Your task to perform on an android device: Open calendar and show me the second week of next month Image 0: 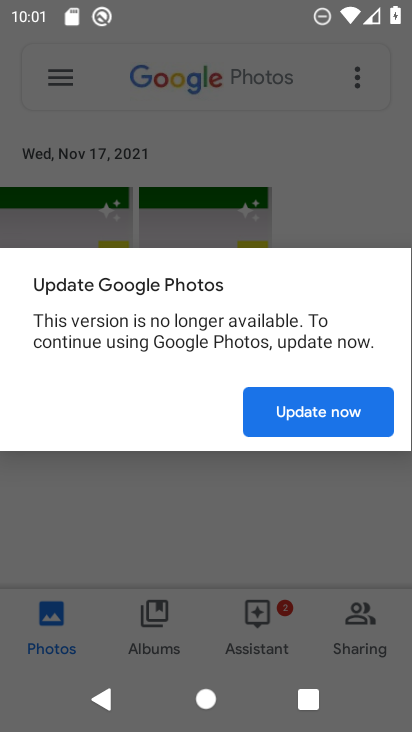
Step 0: press home button
Your task to perform on an android device: Open calendar and show me the second week of next month Image 1: 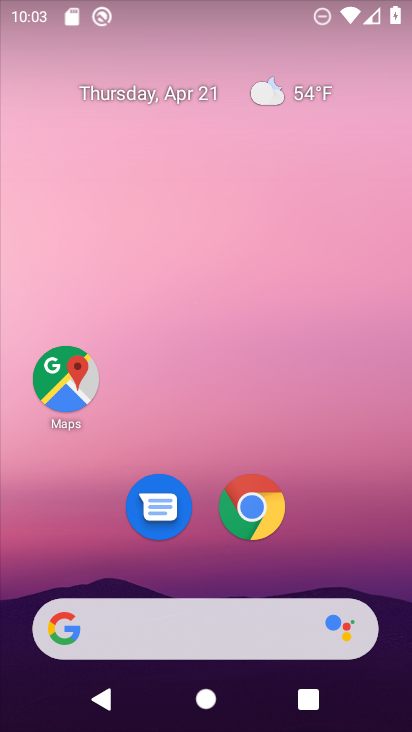
Step 1: drag from (176, 599) to (203, 277)
Your task to perform on an android device: Open calendar and show me the second week of next month Image 2: 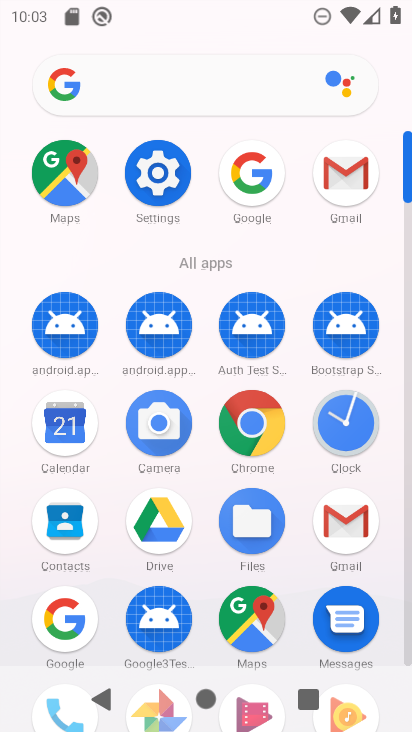
Step 2: click (59, 430)
Your task to perform on an android device: Open calendar and show me the second week of next month Image 3: 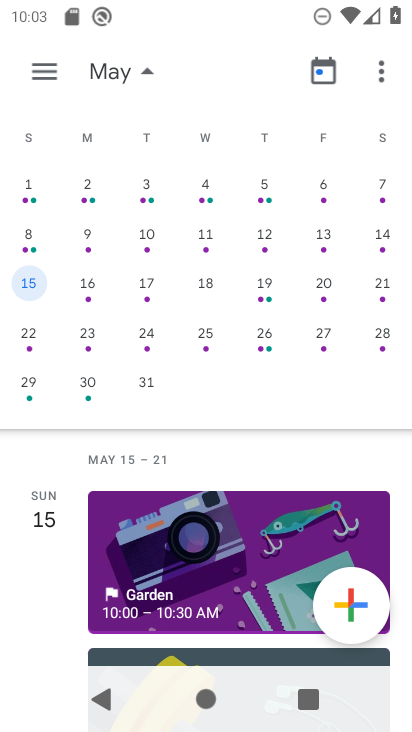
Step 3: click (20, 235)
Your task to perform on an android device: Open calendar and show me the second week of next month Image 4: 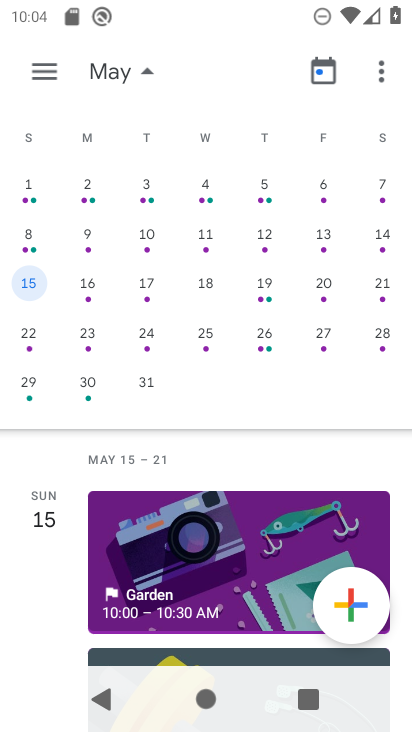
Step 4: click (30, 234)
Your task to perform on an android device: Open calendar and show me the second week of next month Image 5: 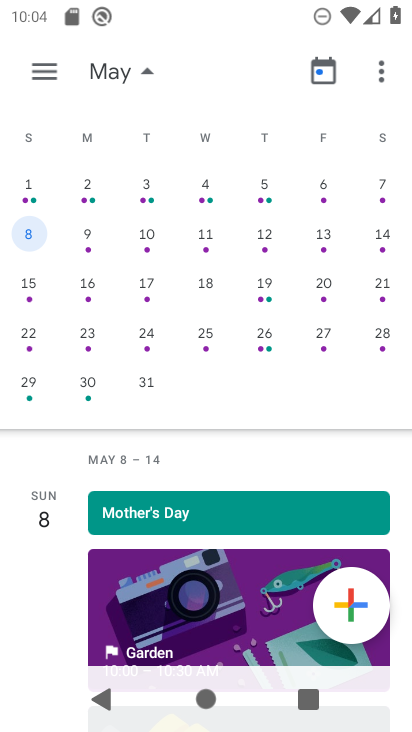
Step 5: task complete